Your task to perform on an android device: check out phone information Image 0: 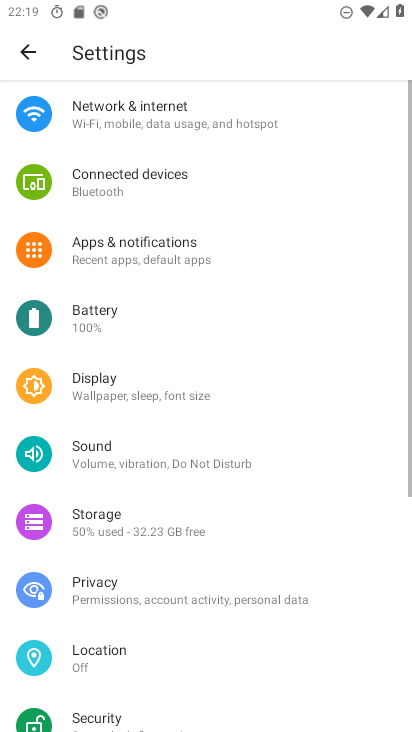
Step 0: press home button
Your task to perform on an android device: check out phone information Image 1: 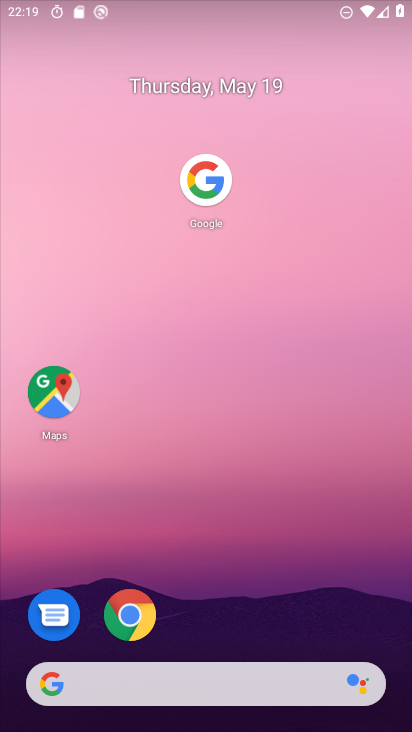
Step 1: drag from (247, 554) to (263, 100)
Your task to perform on an android device: check out phone information Image 2: 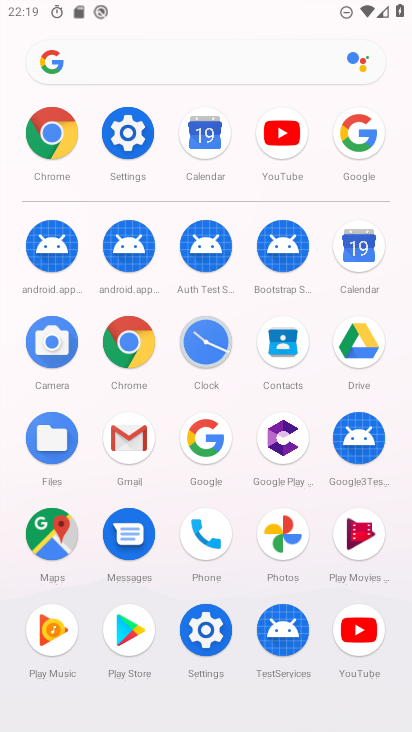
Step 2: click (123, 136)
Your task to perform on an android device: check out phone information Image 3: 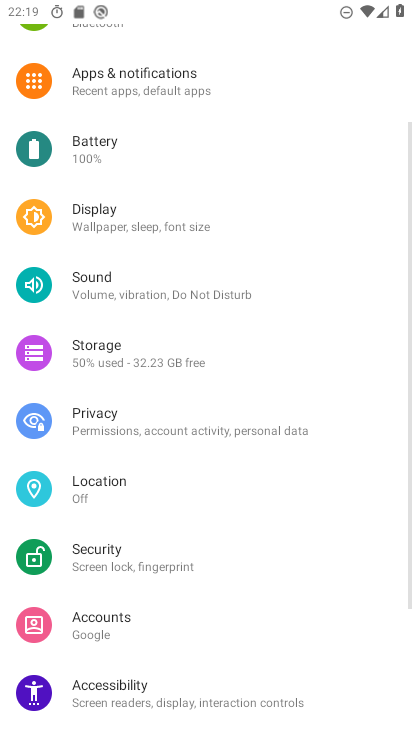
Step 3: drag from (251, 580) to (233, 33)
Your task to perform on an android device: check out phone information Image 4: 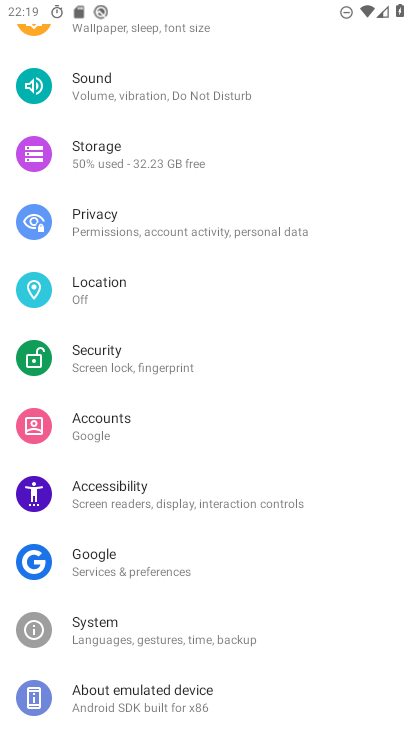
Step 4: click (152, 690)
Your task to perform on an android device: check out phone information Image 5: 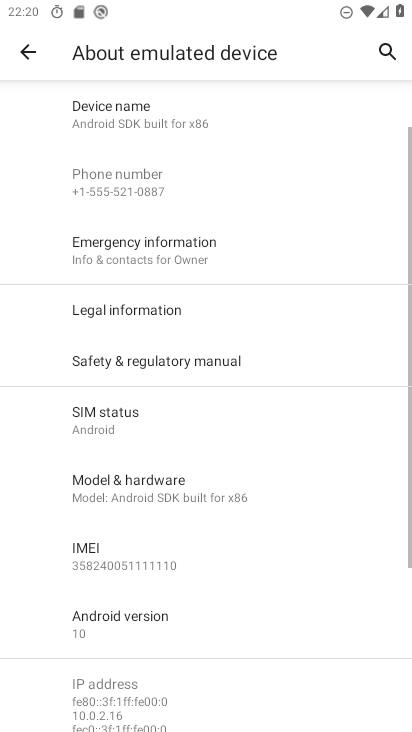
Step 5: task complete